Your task to perform on an android device: Show me recent news Image 0: 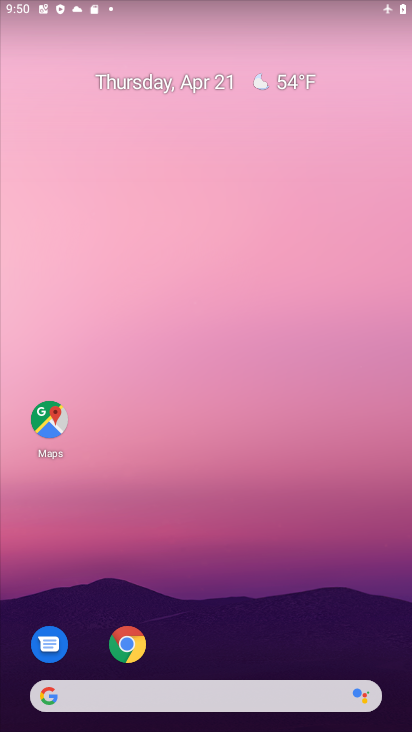
Step 0: click (136, 642)
Your task to perform on an android device: Show me recent news Image 1: 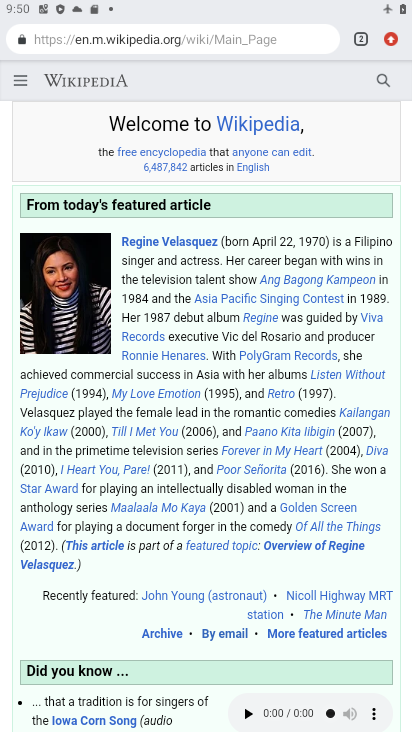
Step 1: click (361, 41)
Your task to perform on an android device: Show me recent news Image 2: 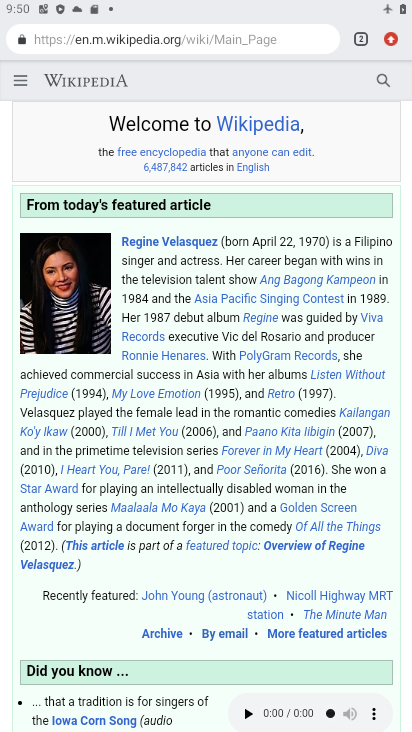
Step 2: click (360, 38)
Your task to perform on an android device: Show me recent news Image 3: 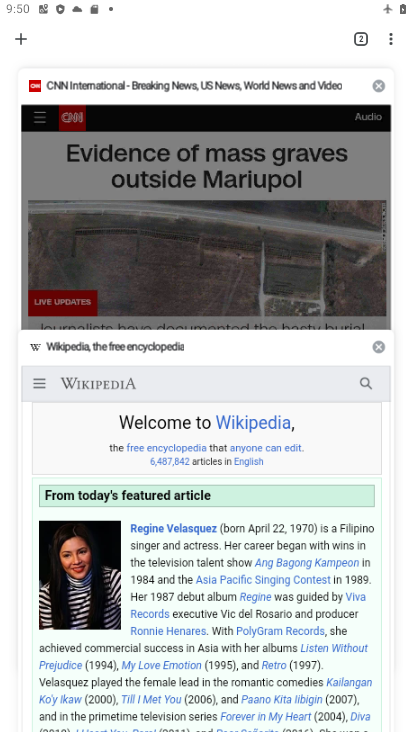
Step 3: click (22, 39)
Your task to perform on an android device: Show me recent news Image 4: 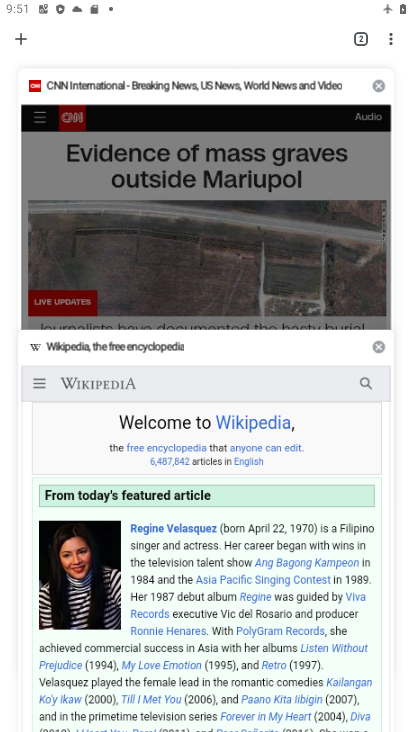
Step 4: click (22, 36)
Your task to perform on an android device: Show me recent news Image 5: 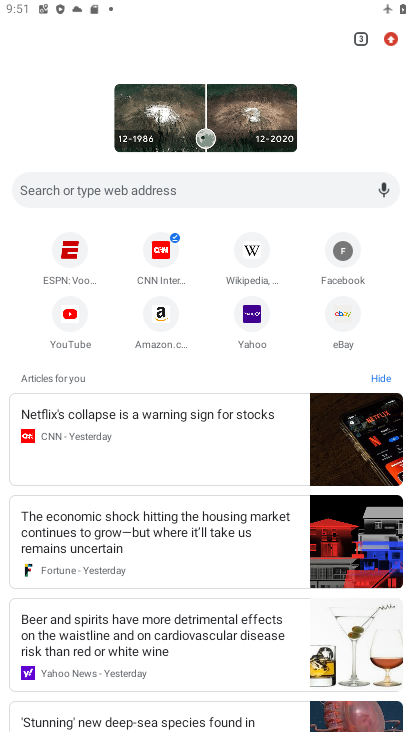
Step 5: click (91, 187)
Your task to perform on an android device: Show me recent news Image 6: 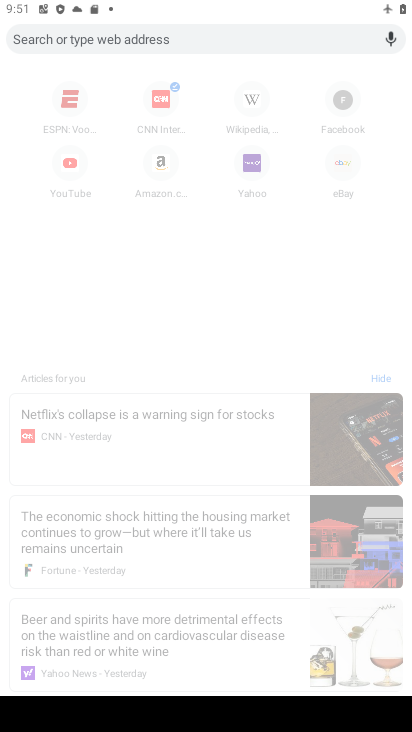
Step 6: type "recent news"
Your task to perform on an android device: Show me recent news Image 7: 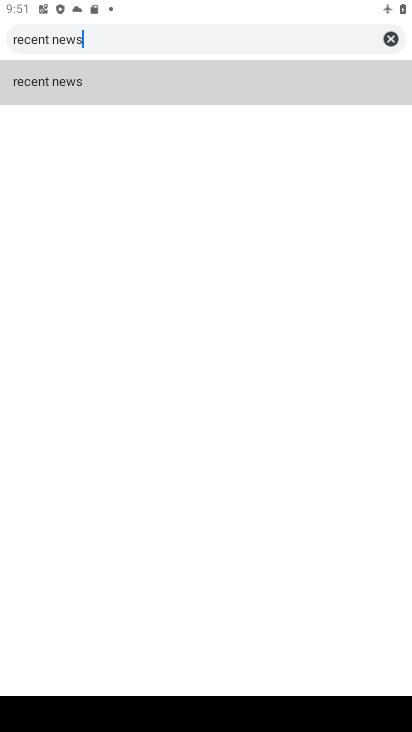
Step 7: click (41, 79)
Your task to perform on an android device: Show me recent news Image 8: 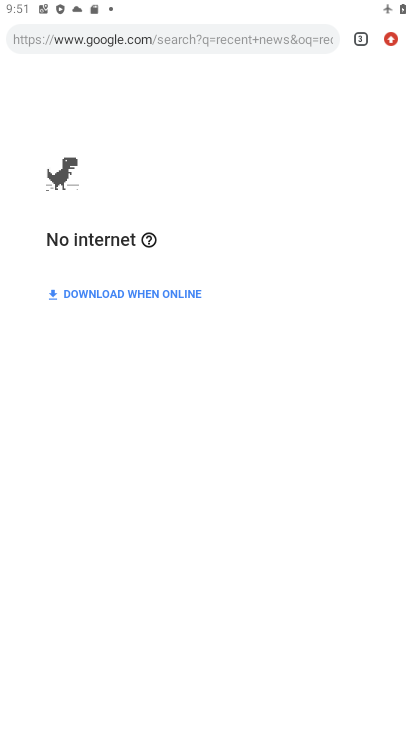
Step 8: task complete